Your task to perform on an android device: Open Youtube and go to the subscriptions tab Image 0: 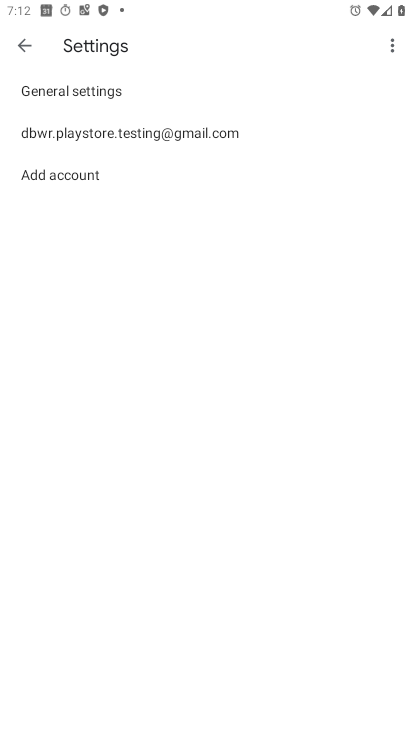
Step 0: press home button
Your task to perform on an android device: Open Youtube and go to the subscriptions tab Image 1: 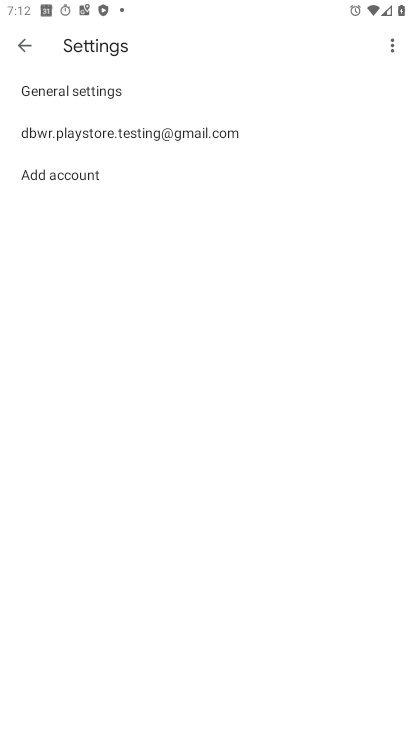
Step 1: drag from (335, 646) to (283, 3)
Your task to perform on an android device: Open Youtube and go to the subscriptions tab Image 2: 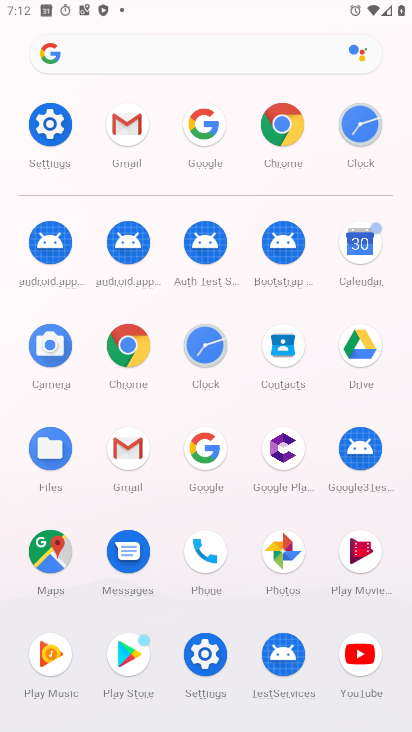
Step 2: click (370, 647)
Your task to perform on an android device: Open Youtube and go to the subscriptions tab Image 3: 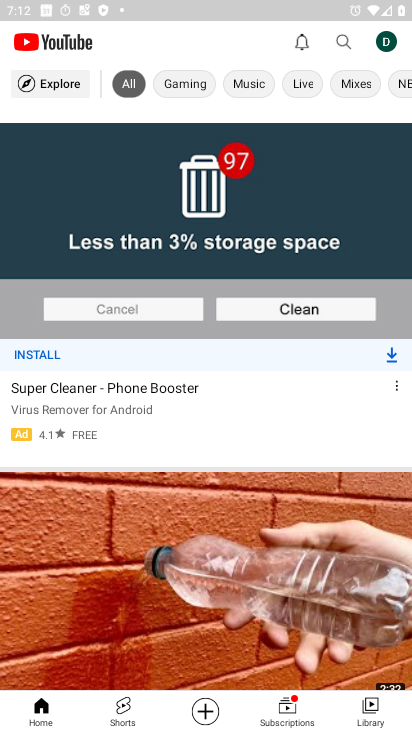
Step 3: click (290, 706)
Your task to perform on an android device: Open Youtube and go to the subscriptions tab Image 4: 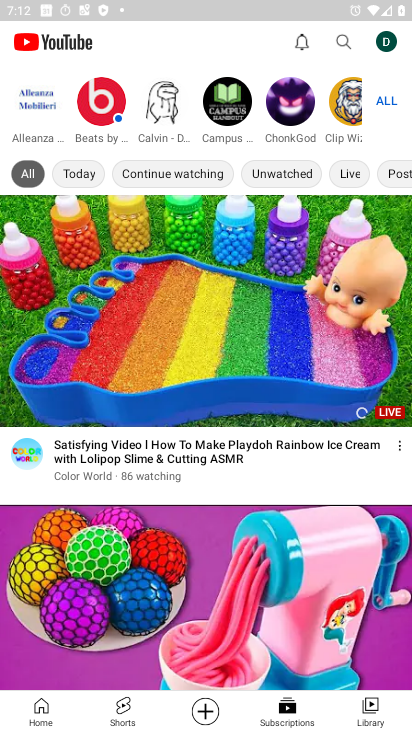
Step 4: task complete